Your task to perform on an android device: toggle pop-ups in chrome Image 0: 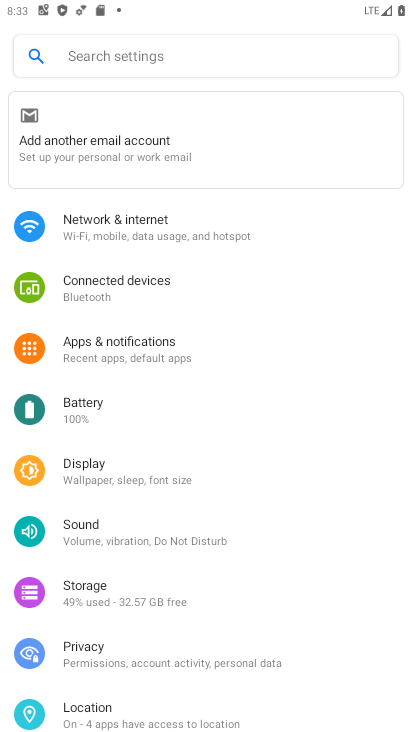
Step 0: press home button
Your task to perform on an android device: toggle pop-ups in chrome Image 1: 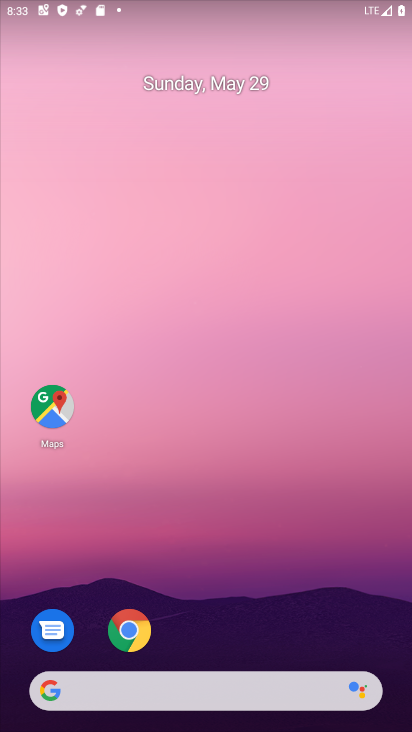
Step 1: click (129, 627)
Your task to perform on an android device: toggle pop-ups in chrome Image 2: 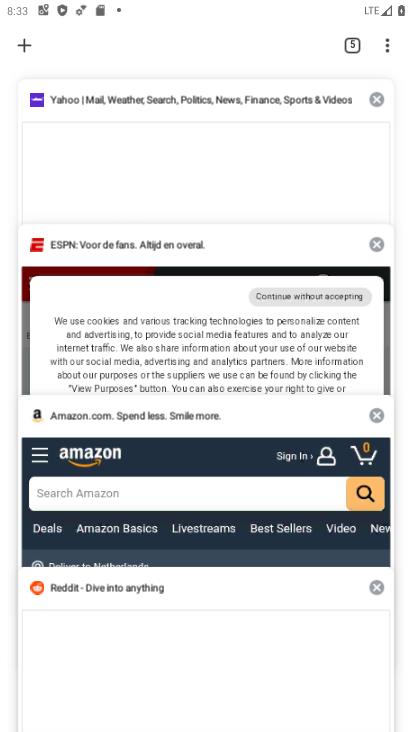
Step 2: click (385, 43)
Your task to perform on an android device: toggle pop-ups in chrome Image 3: 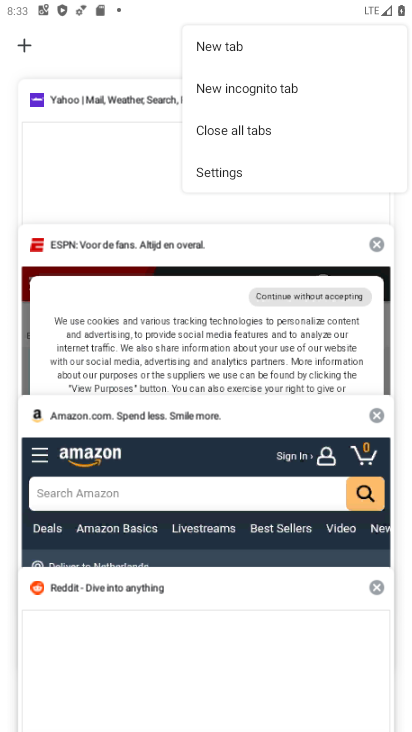
Step 3: click (235, 171)
Your task to perform on an android device: toggle pop-ups in chrome Image 4: 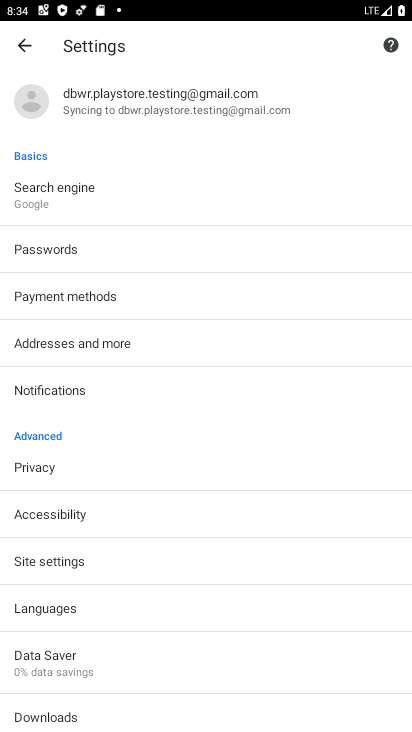
Step 4: click (69, 569)
Your task to perform on an android device: toggle pop-ups in chrome Image 5: 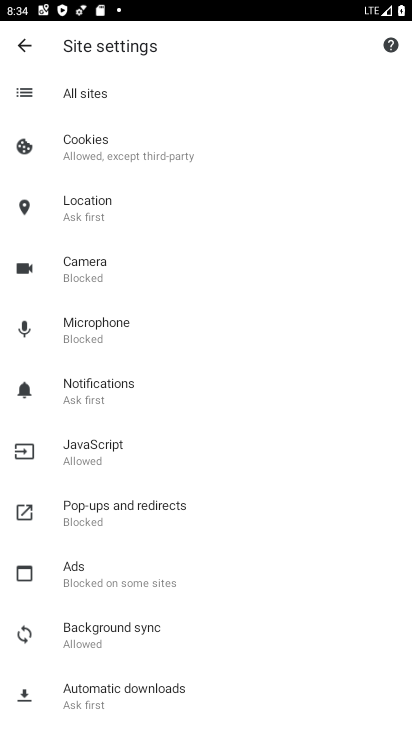
Step 5: click (110, 493)
Your task to perform on an android device: toggle pop-ups in chrome Image 6: 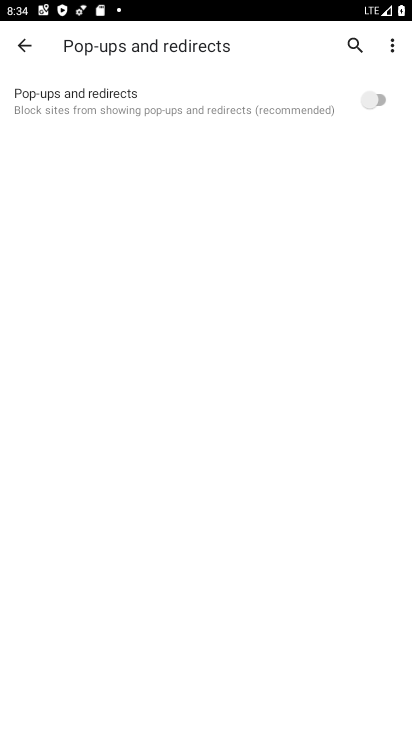
Step 6: click (339, 92)
Your task to perform on an android device: toggle pop-ups in chrome Image 7: 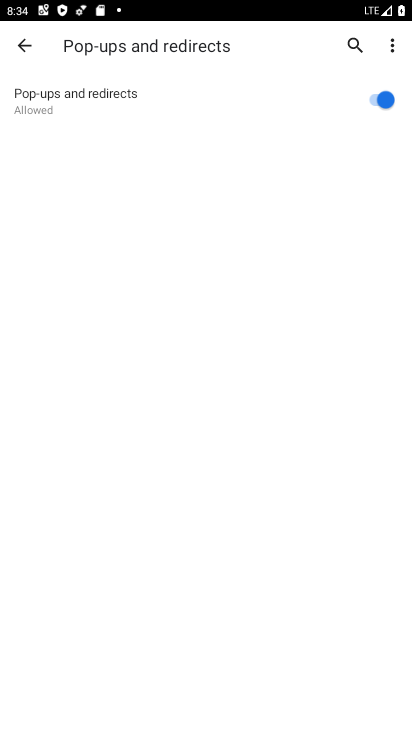
Step 7: task complete